Your task to perform on an android device: Open Google Chrome Image 0: 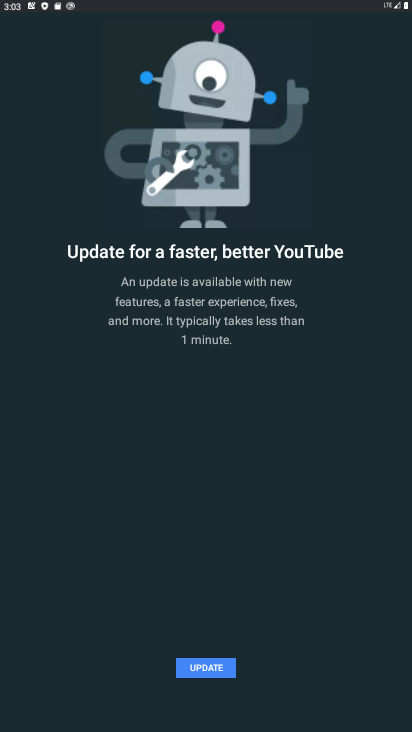
Step 0: drag from (303, 583) to (333, 383)
Your task to perform on an android device: Open Google Chrome Image 1: 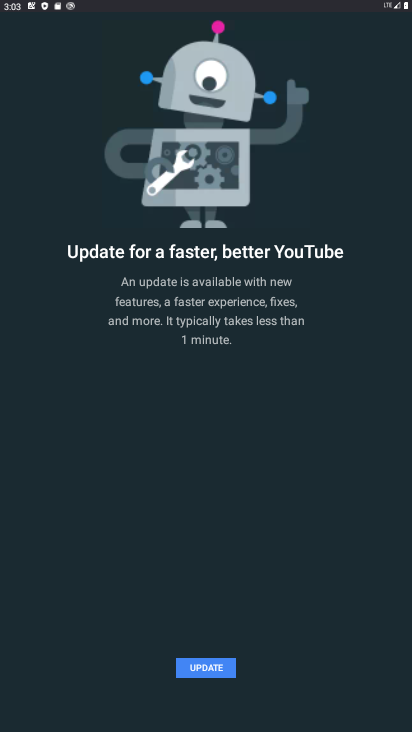
Step 1: press enter
Your task to perform on an android device: Open Google Chrome Image 2: 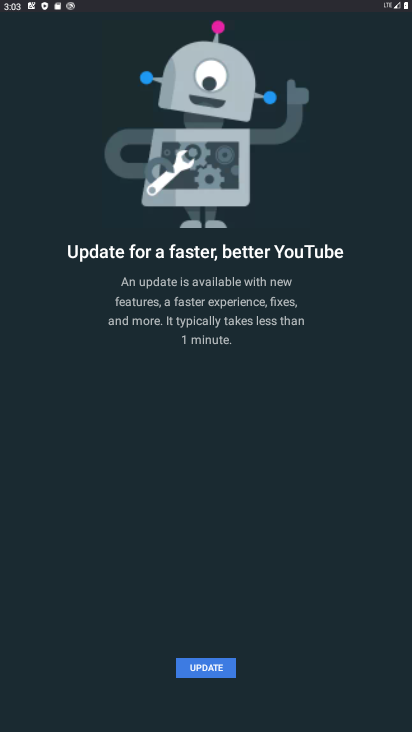
Step 2: press home button
Your task to perform on an android device: Open Google Chrome Image 3: 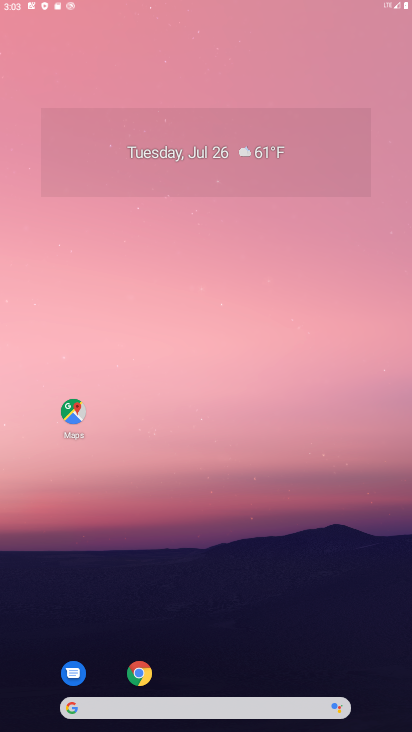
Step 3: drag from (226, 605) to (260, 161)
Your task to perform on an android device: Open Google Chrome Image 4: 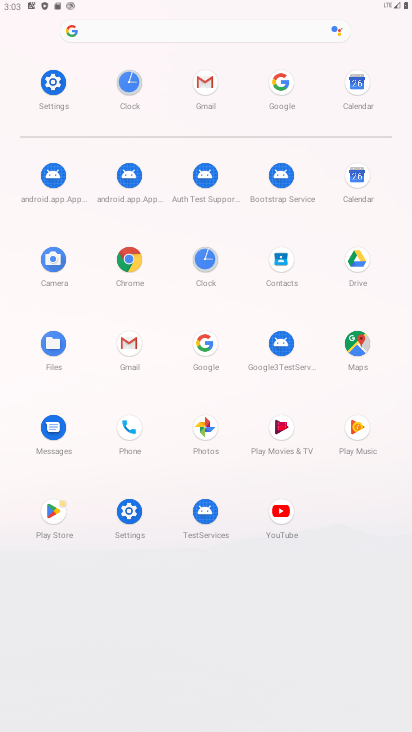
Step 4: click (130, 259)
Your task to perform on an android device: Open Google Chrome Image 5: 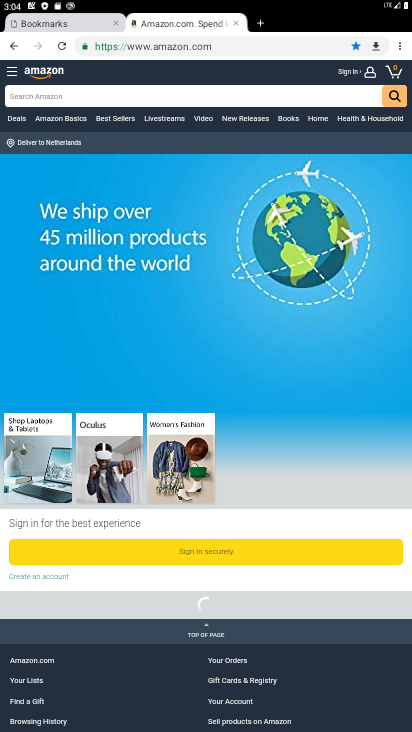
Step 5: task complete